Your task to perform on an android device: Go to sound settings Image 0: 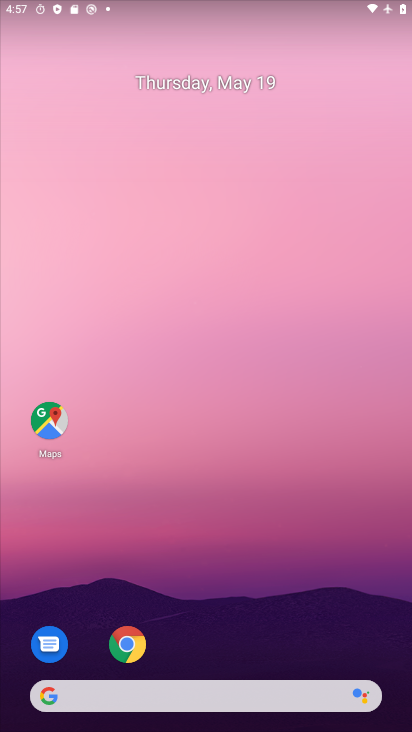
Step 0: drag from (227, 678) to (226, 193)
Your task to perform on an android device: Go to sound settings Image 1: 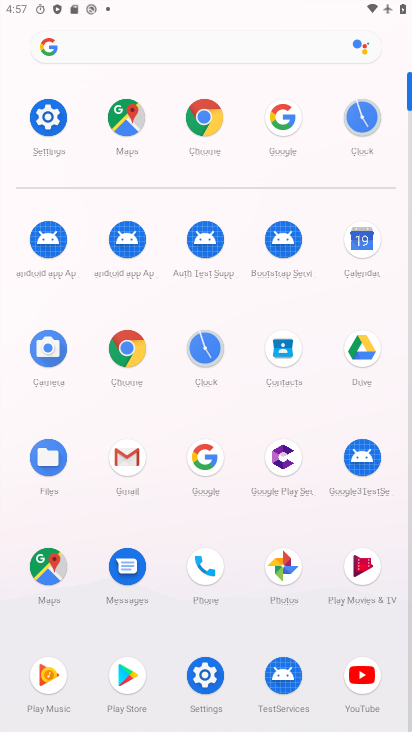
Step 1: click (29, 111)
Your task to perform on an android device: Go to sound settings Image 2: 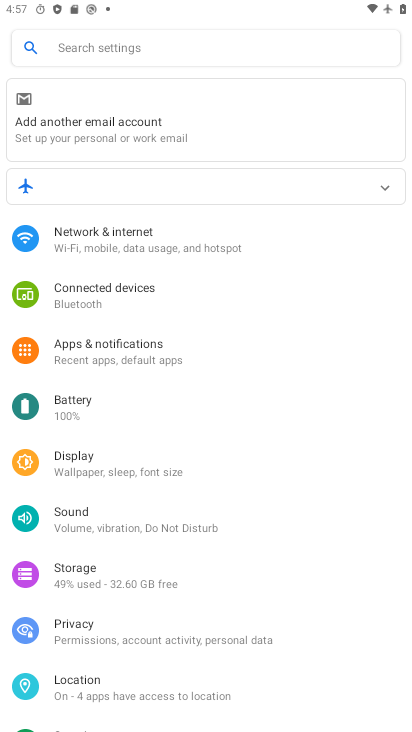
Step 2: click (80, 515)
Your task to perform on an android device: Go to sound settings Image 3: 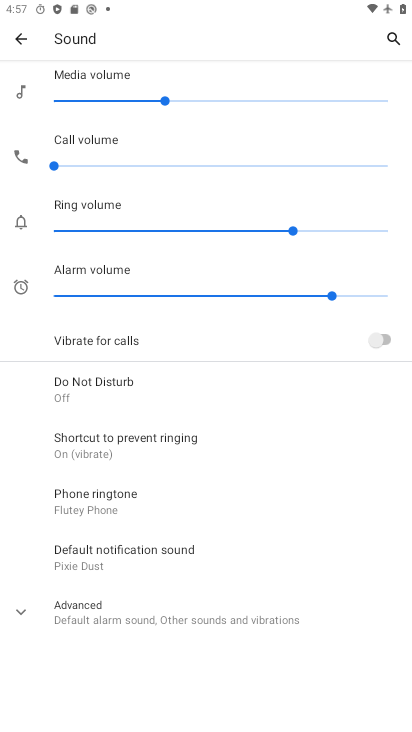
Step 3: click (120, 618)
Your task to perform on an android device: Go to sound settings Image 4: 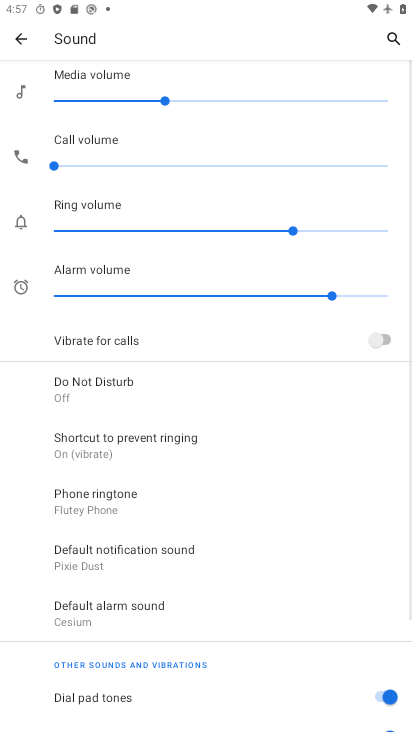
Step 4: task complete